Your task to perform on an android device: Search for seafood restaurants on Google Maps Image 0: 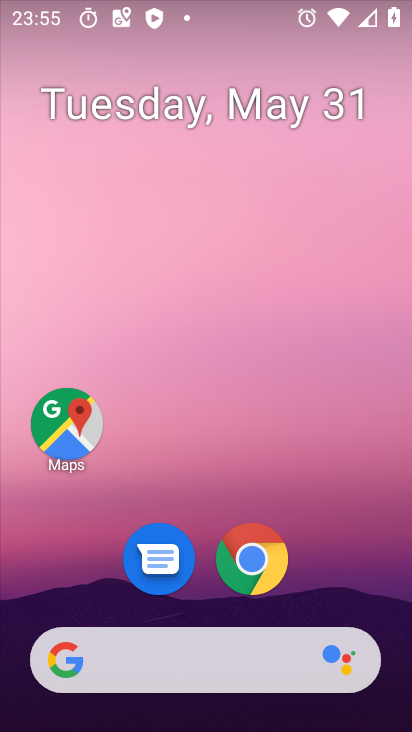
Step 0: click (63, 423)
Your task to perform on an android device: Search for seafood restaurants on Google Maps Image 1: 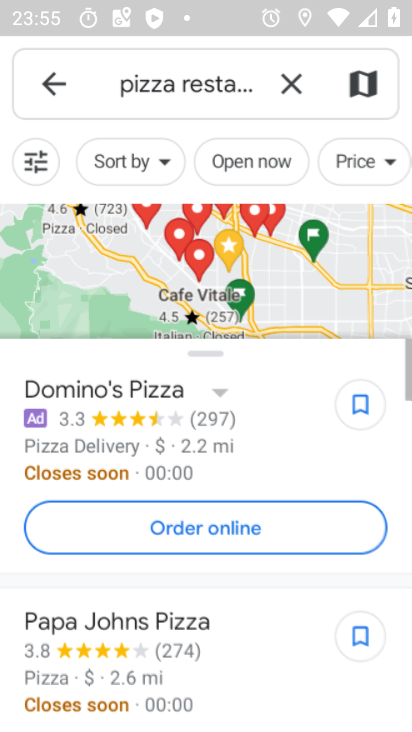
Step 1: click (291, 88)
Your task to perform on an android device: Search for seafood restaurants on Google Maps Image 2: 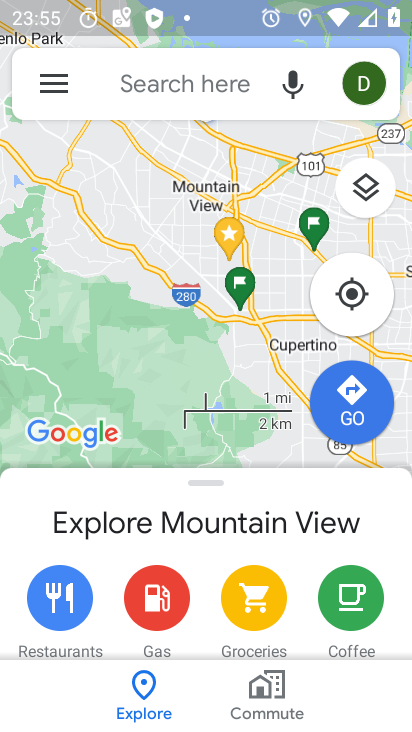
Step 2: click (212, 85)
Your task to perform on an android device: Search for seafood restaurants on Google Maps Image 3: 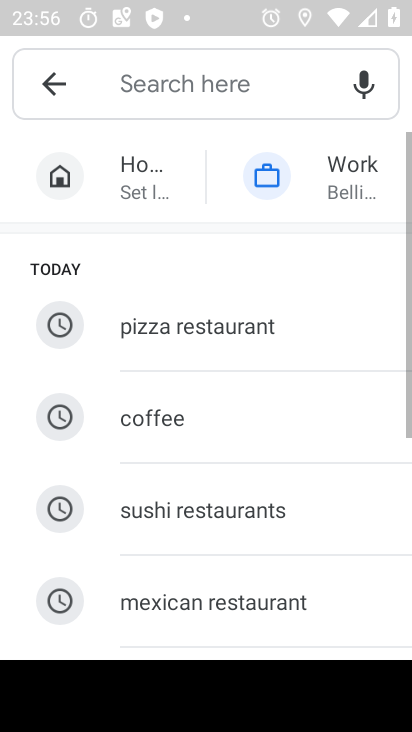
Step 3: drag from (147, 556) to (172, 237)
Your task to perform on an android device: Search for seafood restaurants on Google Maps Image 4: 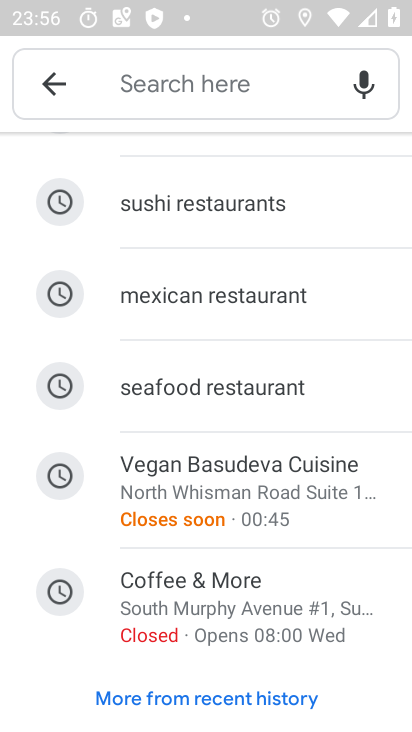
Step 4: click (208, 390)
Your task to perform on an android device: Search for seafood restaurants on Google Maps Image 5: 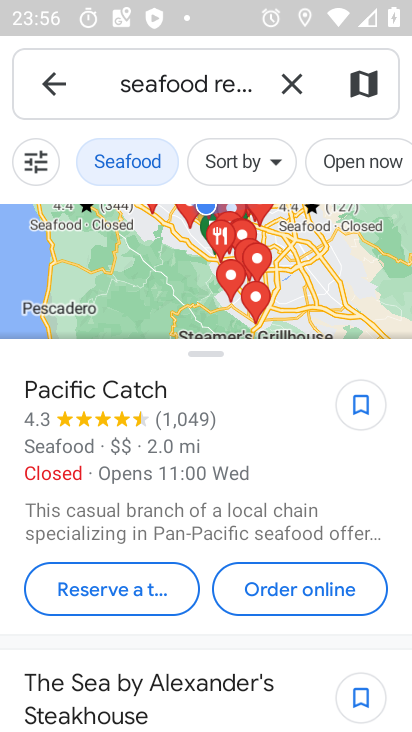
Step 5: task complete